Your task to perform on an android device: turn on the 24-hour format for clock Image 0: 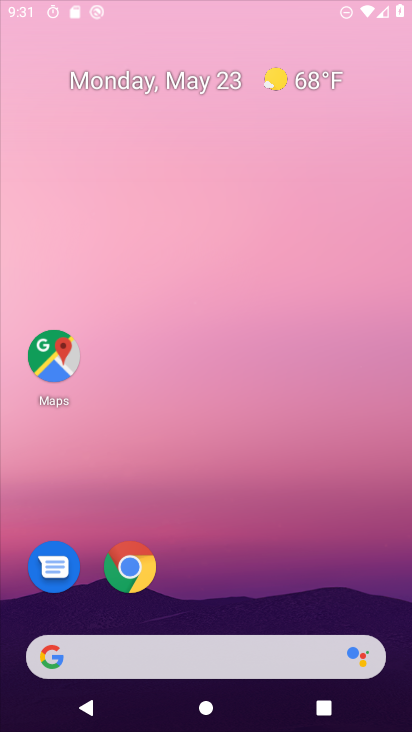
Step 0: click (46, 446)
Your task to perform on an android device: turn on the 24-hour format for clock Image 1: 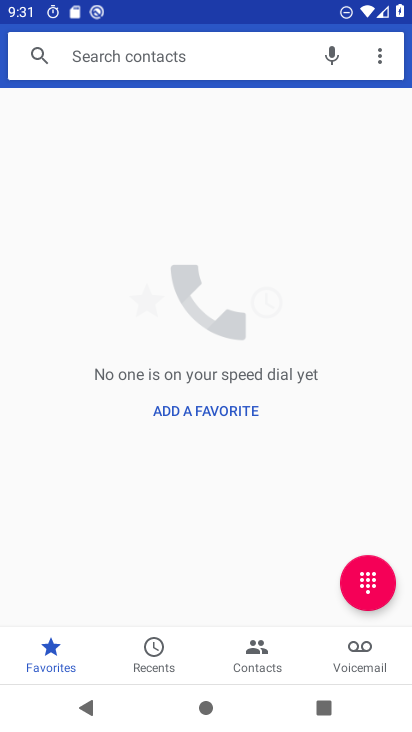
Step 1: drag from (188, 593) to (245, 132)
Your task to perform on an android device: turn on the 24-hour format for clock Image 2: 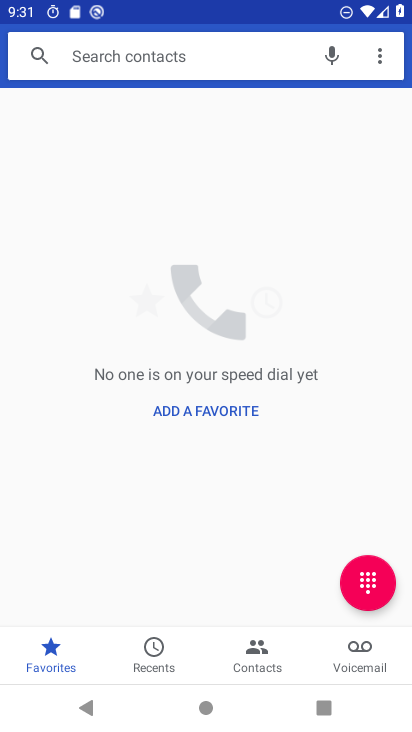
Step 2: press home button
Your task to perform on an android device: turn on the 24-hour format for clock Image 3: 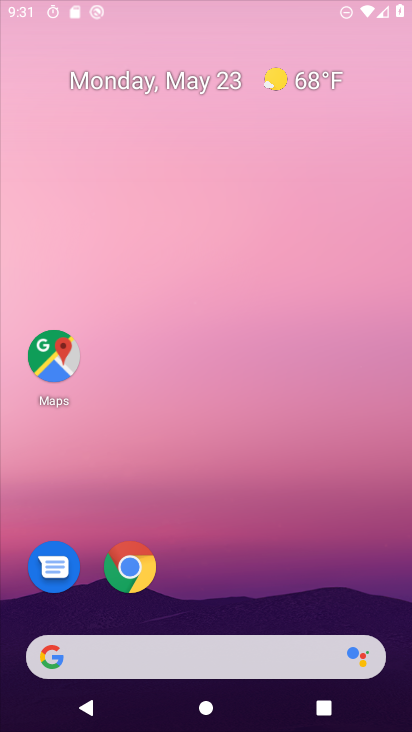
Step 3: drag from (268, 606) to (312, 37)
Your task to perform on an android device: turn on the 24-hour format for clock Image 4: 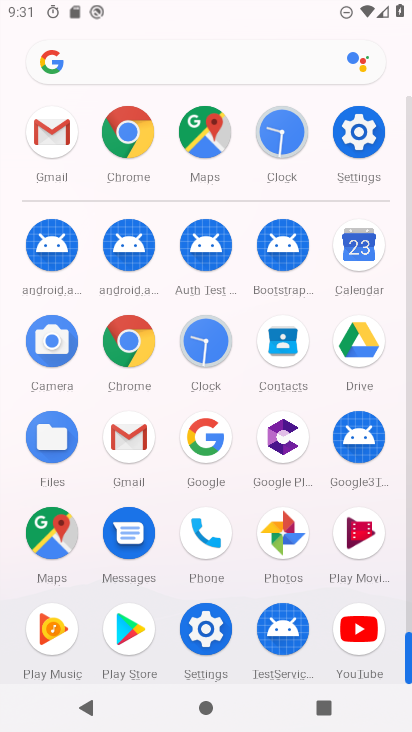
Step 4: click (215, 344)
Your task to perform on an android device: turn on the 24-hour format for clock Image 5: 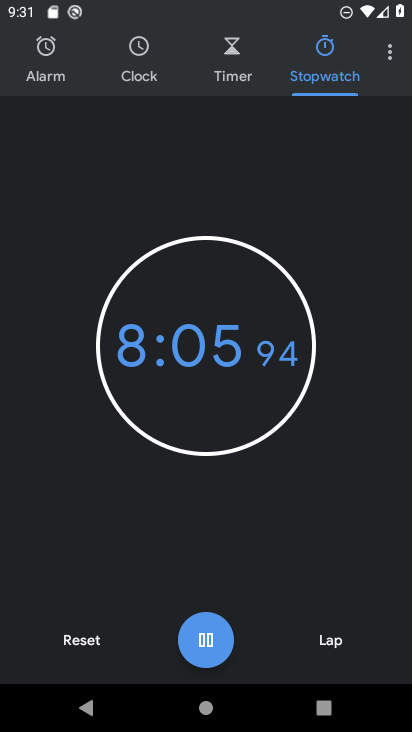
Step 5: click (75, 643)
Your task to perform on an android device: turn on the 24-hour format for clock Image 6: 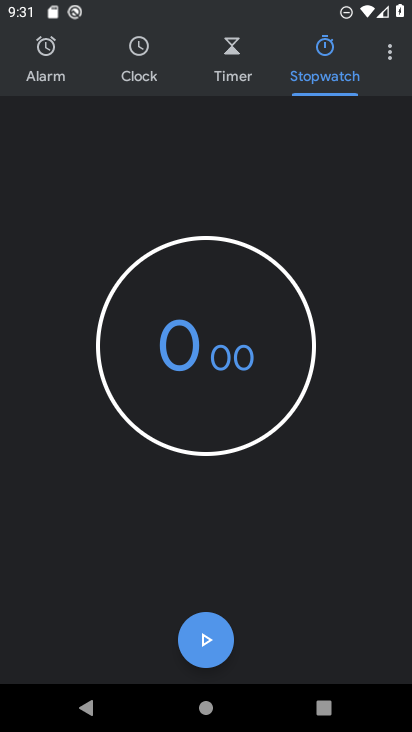
Step 6: click (393, 56)
Your task to perform on an android device: turn on the 24-hour format for clock Image 7: 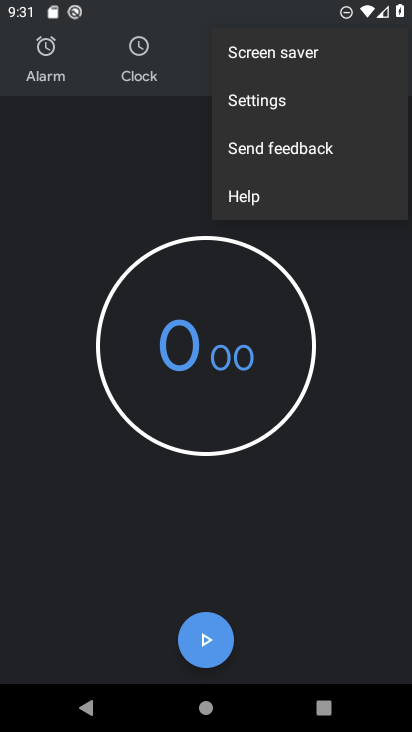
Step 7: click (299, 104)
Your task to perform on an android device: turn on the 24-hour format for clock Image 8: 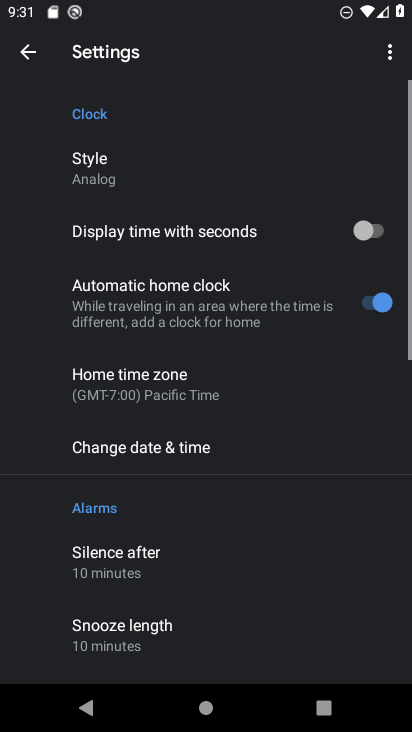
Step 8: drag from (211, 451) to (268, 228)
Your task to perform on an android device: turn on the 24-hour format for clock Image 9: 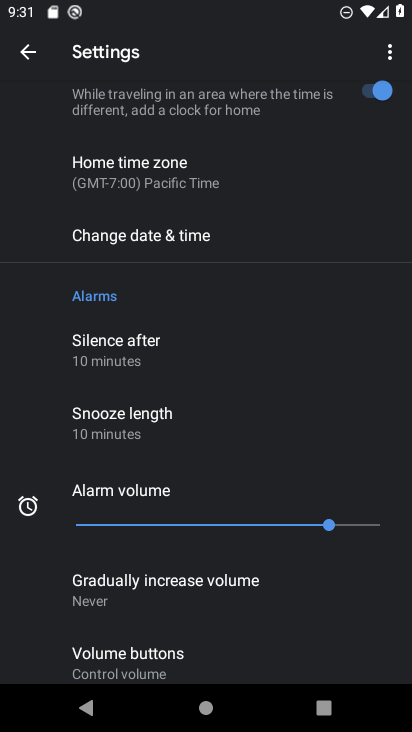
Step 9: click (202, 242)
Your task to perform on an android device: turn on the 24-hour format for clock Image 10: 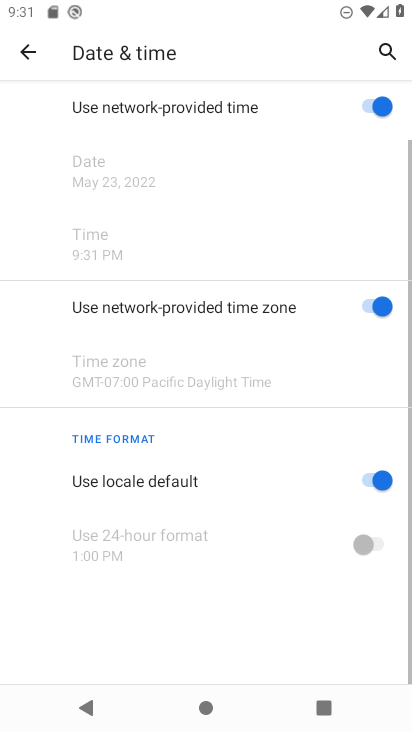
Step 10: drag from (224, 487) to (287, 147)
Your task to perform on an android device: turn on the 24-hour format for clock Image 11: 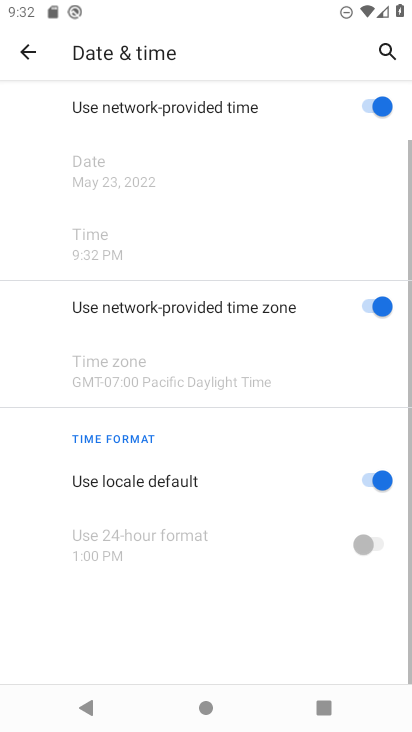
Step 11: click (369, 487)
Your task to perform on an android device: turn on the 24-hour format for clock Image 12: 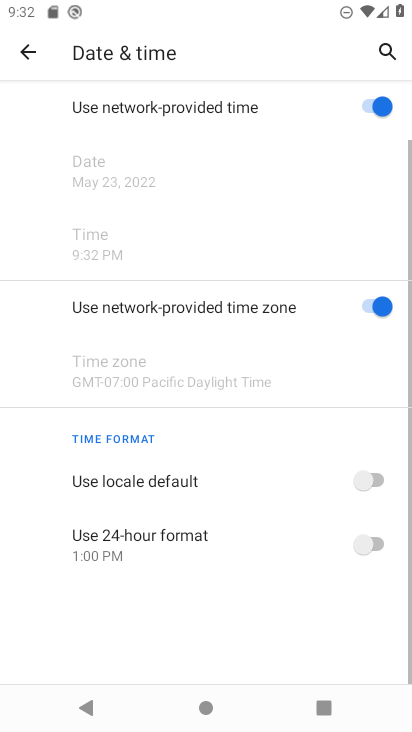
Step 12: click (371, 542)
Your task to perform on an android device: turn on the 24-hour format for clock Image 13: 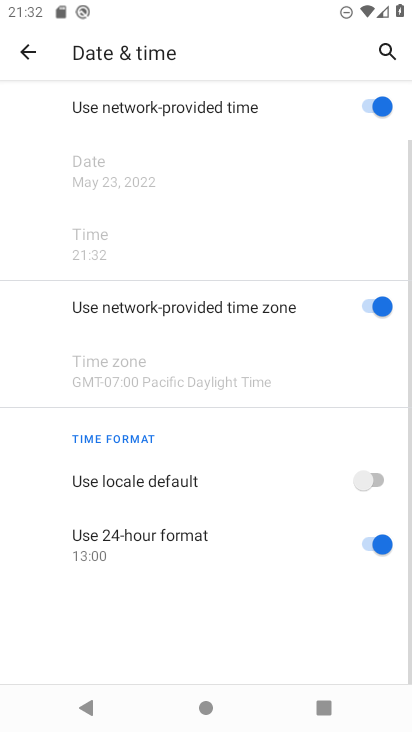
Step 13: task complete